Your task to perform on an android device: Search for flights from Tokyo to NYC Image 0: 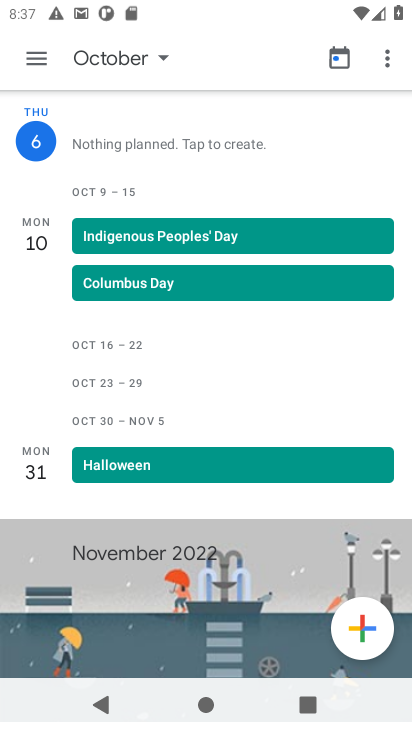
Step 0: press home button
Your task to perform on an android device: Search for flights from Tokyo to NYC Image 1: 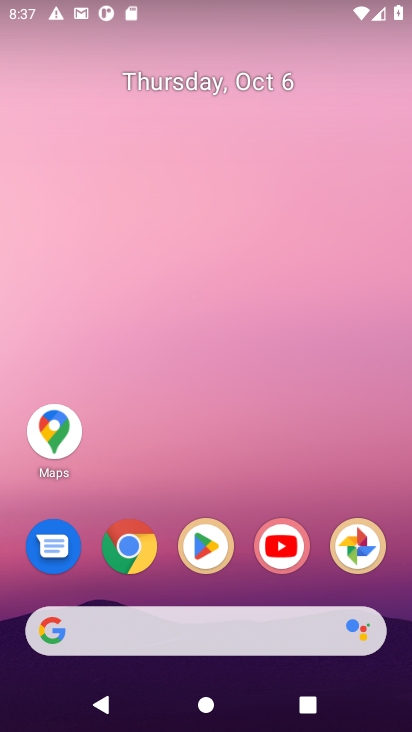
Step 1: click (133, 544)
Your task to perform on an android device: Search for flights from Tokyo to NYC Image 2: 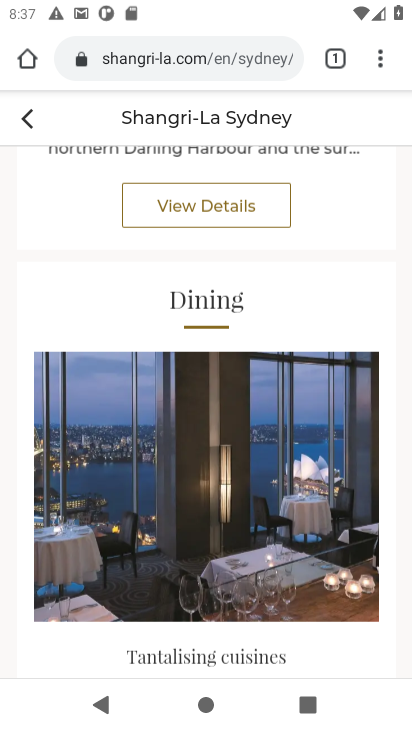
Step 2: click (220, 47)
Your task to perform on an android device: Search for flights from Tokyo to NYC Image 3: 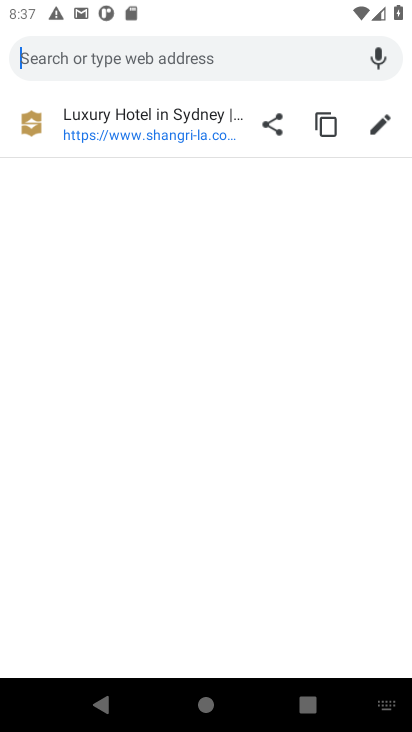
Step 3: type "flights from Tokyo to NYC"
Your task to perform on an android device: Search for flights from Tokyo to NYC Image 4: 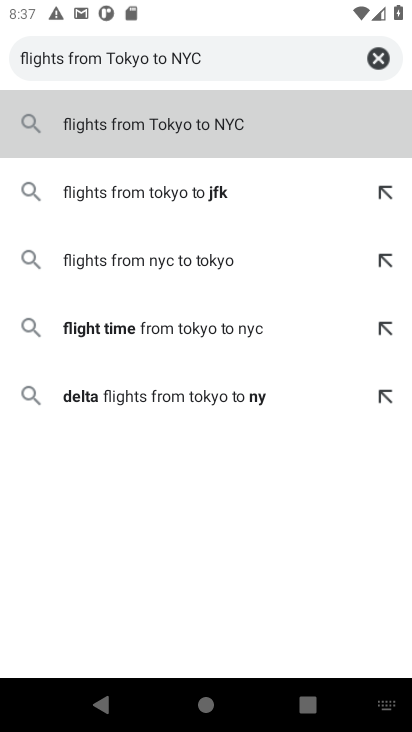
Step 4: click (126, 128)
Your task to perform on an android device: Search for flights from Tokyo to NYC Image 5: 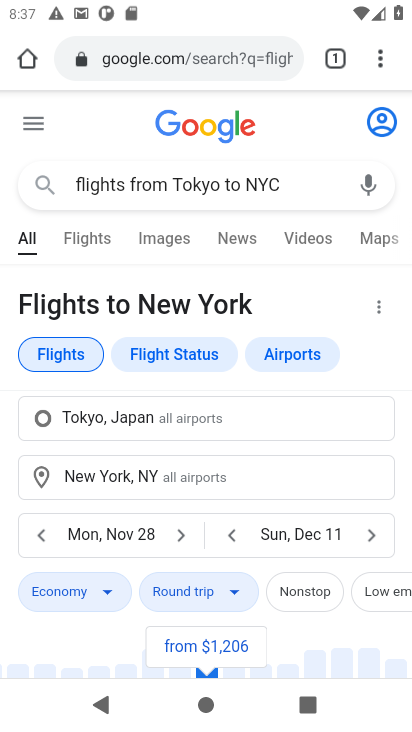
Step 5: drag from (207, 396) to (219, 157)
Your task to perform on an android device: Search for flights from Tokyo to NYC Image 6: 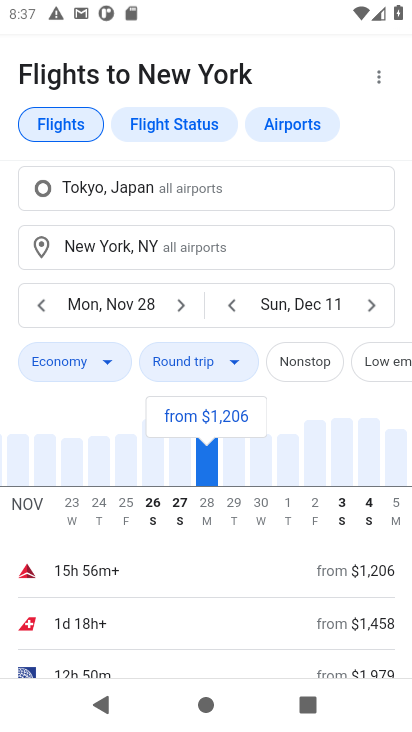
Step 6: drag from (214, 546) to (227, 292)
Your task to perform on an android device: Search for flights from Tokyo to NYC Image 7: 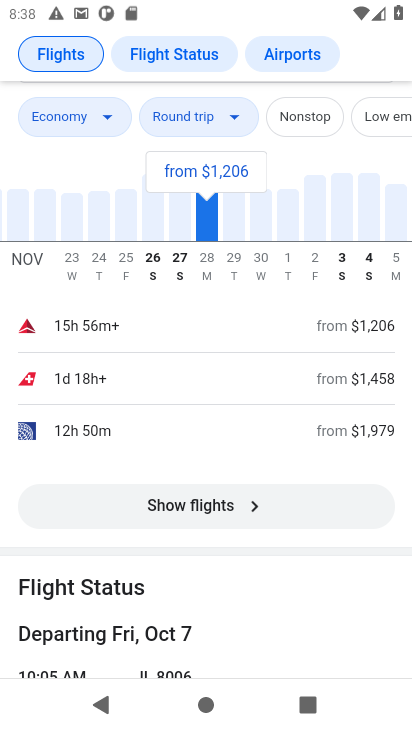
Step 7: click (197, 509)
Your task to perform on an android device: Search for flights from Tokyo to NYC Image 8: 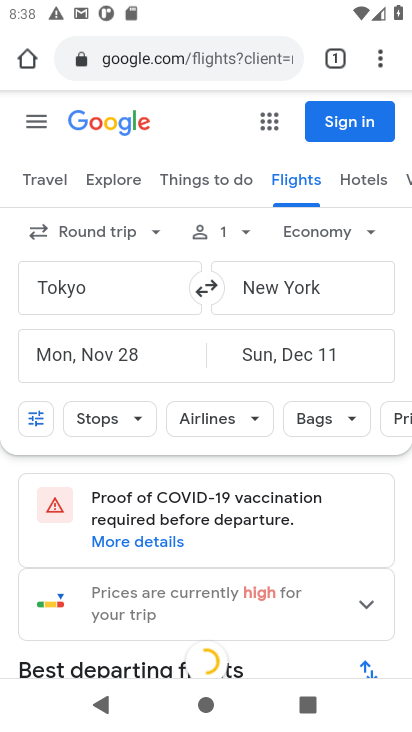
Step 8: task complete